Your task to perform on an android device: toggle show notifications on the lock screen Image 0: 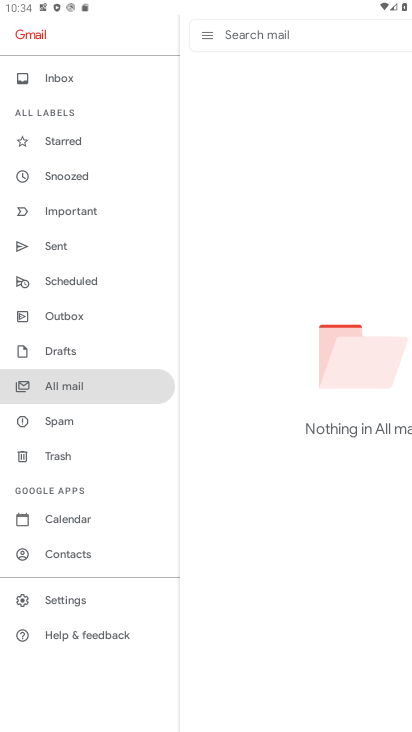
Step 0: press back button
Your task to perform on an android device: toggle show notifications on the lock screen Image 1: 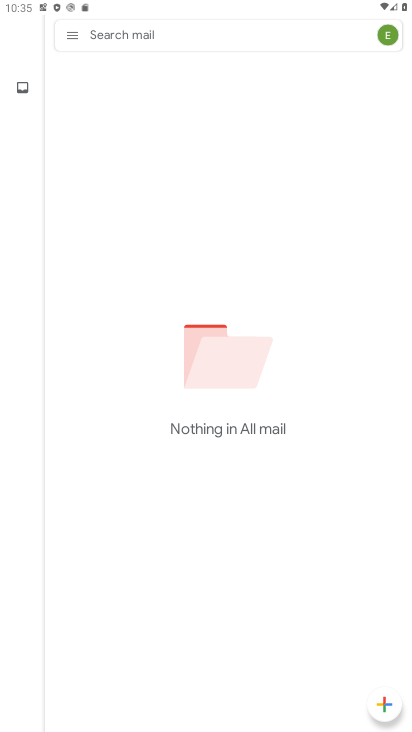
Step 1: press back button
Your task to perform on an android device: toggle show notifications on the lock screen Image 2: 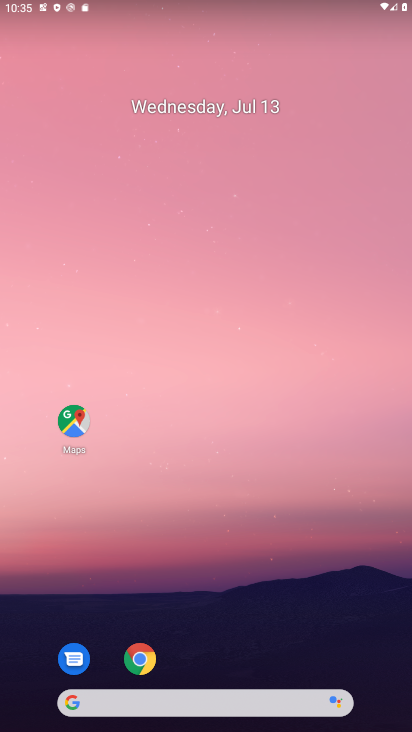
Step 2: drag from (243, 690) to (160, 200)
Your task to perform on an android device: toggle show notifications on the lock screen Image 3: 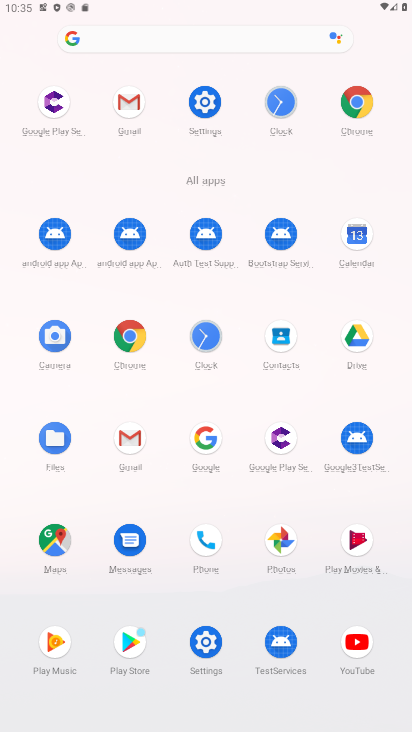
Step 3: click (196, 91)
Your task to perform on an android device: toggle show notifications on the lock screen Image 4: 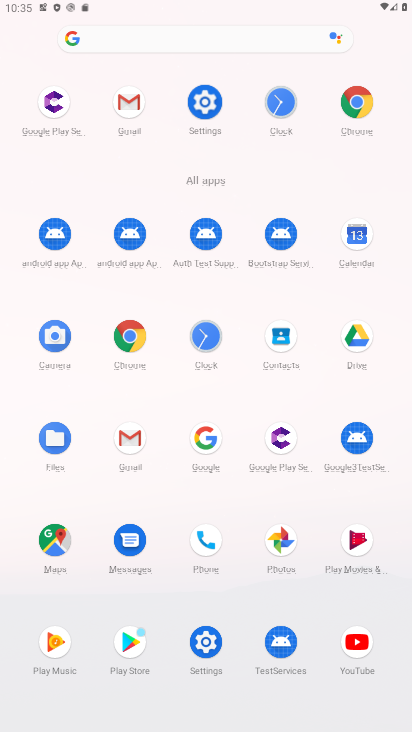
Step 4: click (203, 86)
Your task to perform on an android device: toggle show notifications on the lock screen Image 5: 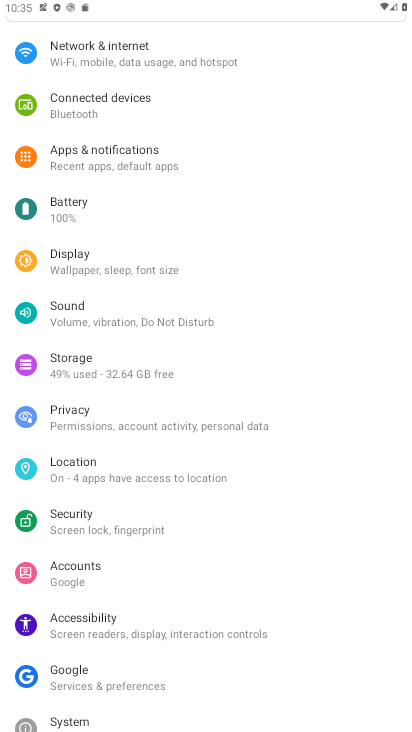
Step 5: click (118, 157)
Your task to perform on an android device: toggle show notifications on the lock screen Image 6: 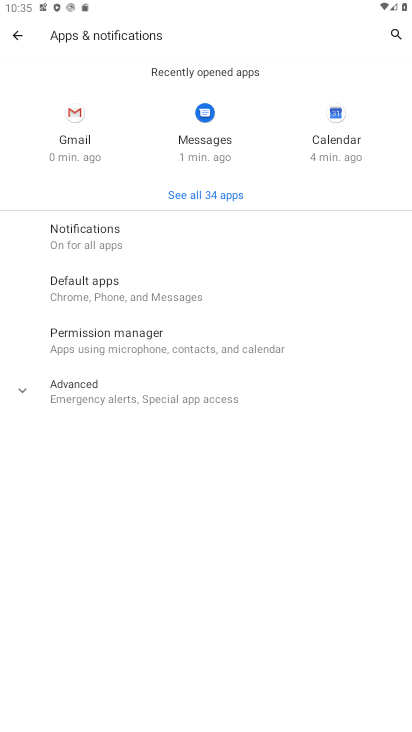
Step 6: click (91, 226)
Your task to perform on an android device: toggle show notifications on the lock screen Image 7: 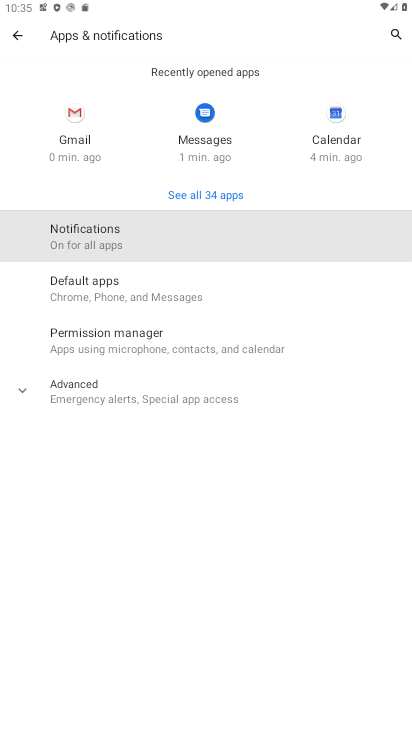
Step 7: click (96, 223)
Your task to perform on an android device: toggle show notifications on the lock screen Image 8: 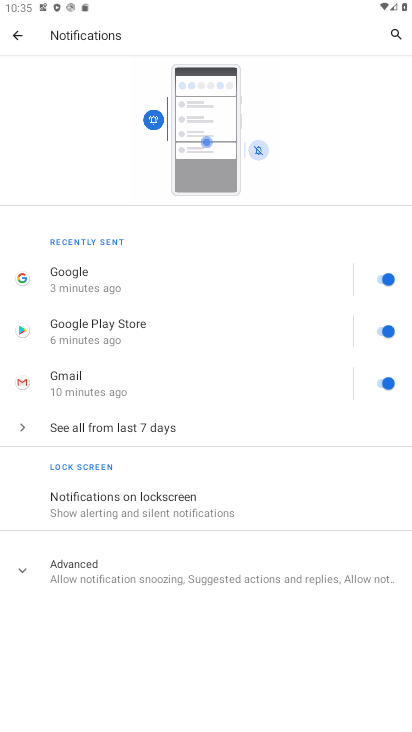
Step 8: click (174, 492)
Your task to perform on an android device: toggle show notifications on the lock screen Image 9: 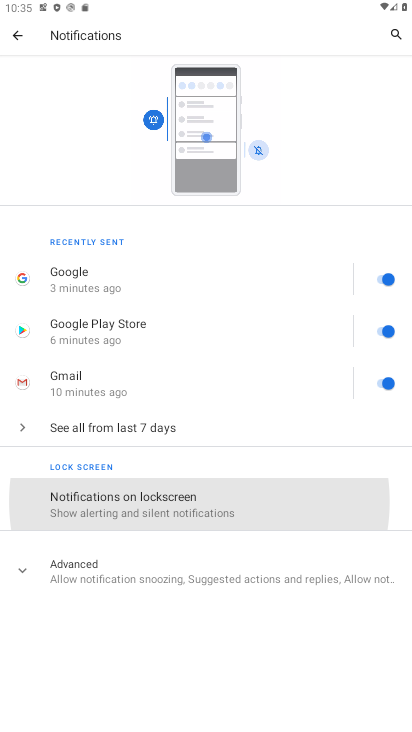
Step 9: click (174, 492)
Your task to perform on an android device: toggle show notifications on the lock screen Image 10: 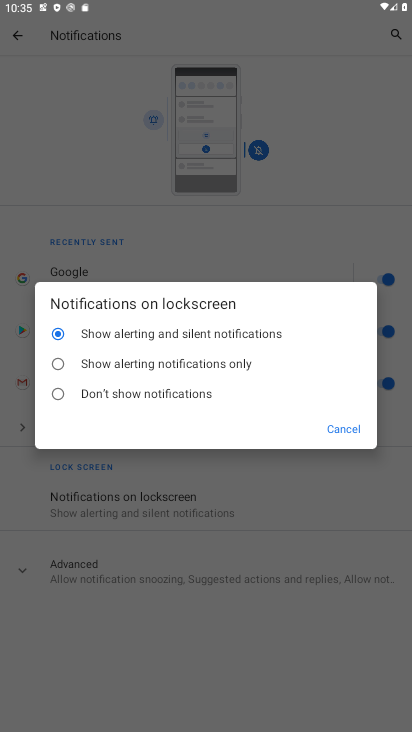
Step 10: click (344, 433)
Your task to perform on an android device: toggle show notifications on the lock screen Image 11: 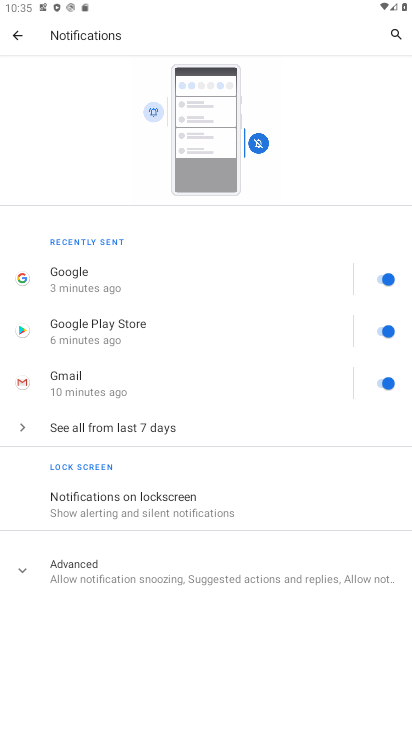
Step 11: task complete